Your task to perform on an android device: Open Maps and search for coffee Image 0: 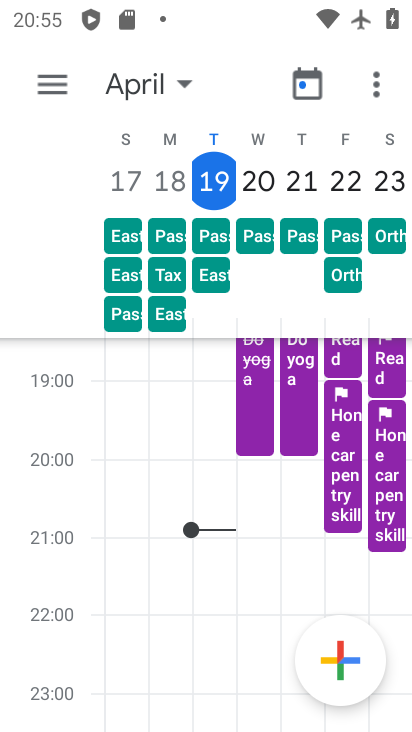
Step 0: press home button
Your task to perform on an android device: Open Maps and search for coffee Image 1: 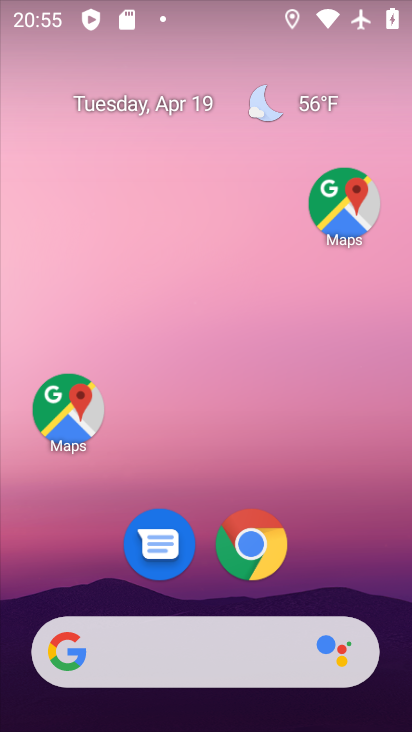
Step 1: drag from (165, 544) to (304, 6)
Your task to perform on an android device: Open Maps and search for coffee Image 2: 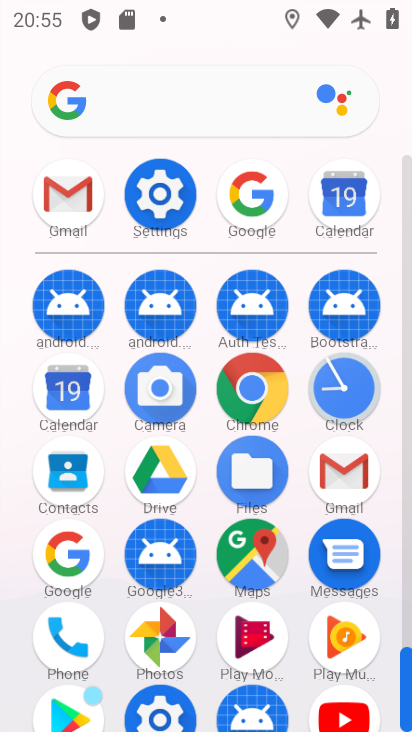
Step 2: click (244, 557)
Your task to perform on an android device: Open Maps and search for coffee Image 3: 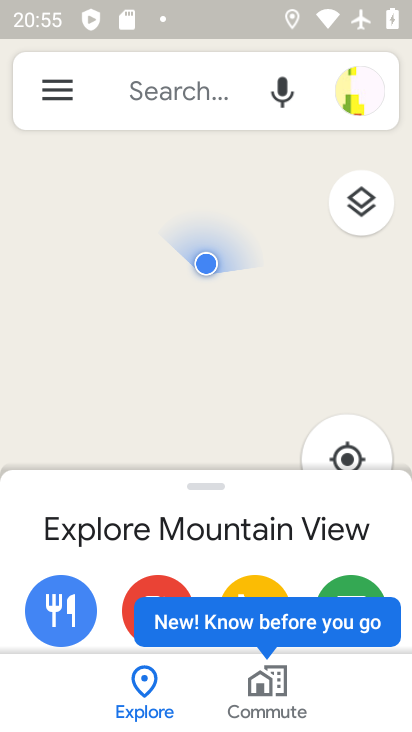
Step 3: click (180, 86)
Your task to perform on an android device: Open Maps and search for coffee Image 4: 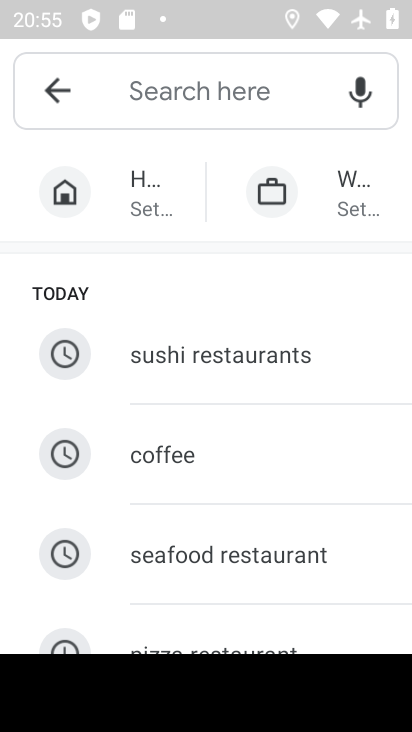
Step 4: click (168, 458)
Your task to perform on an android device: Open Maps and search for coffee Image 5: 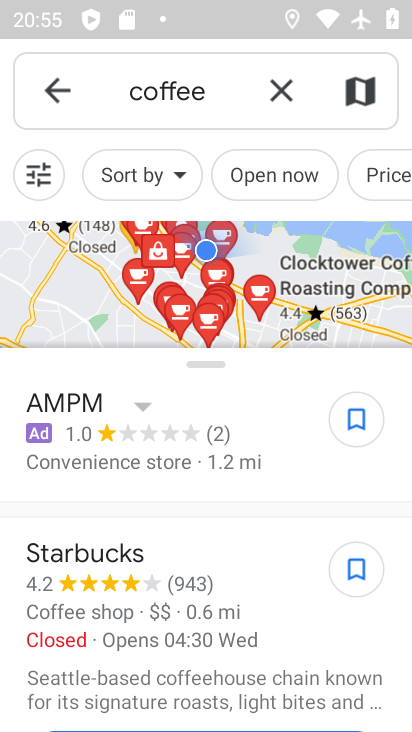
Step 5: task complete